Your task to perform on an android device: find which apps use the phone's location Image 0: 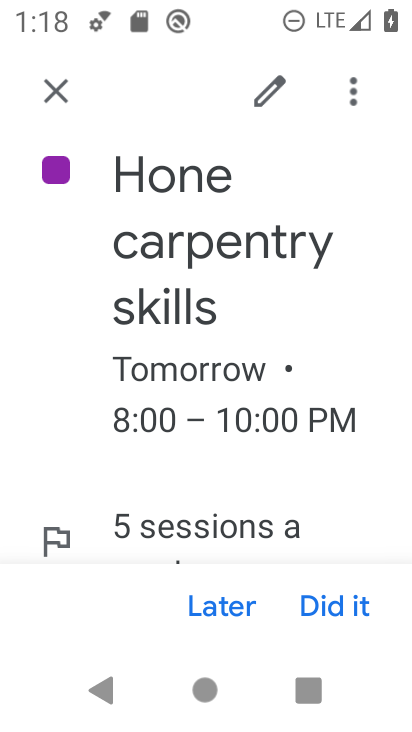
Step 0: press home button
Your task to perform on an android device: find which apps use the phone's location Image 1: 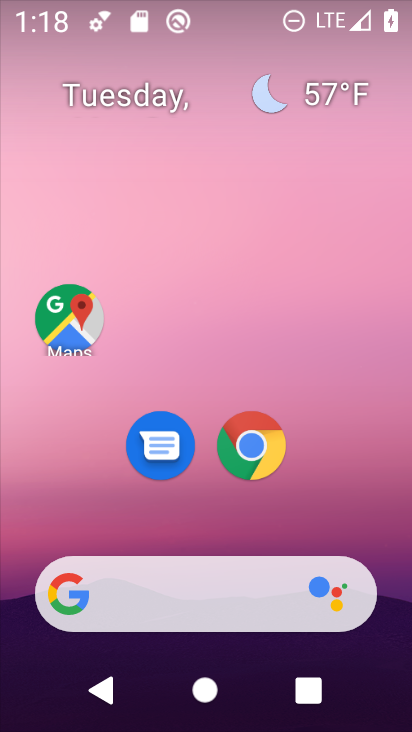
Step 1: drag from (393, 551) to (381, 166)
Your task to perform on an android device: find which apps use the phone's location Image 2: 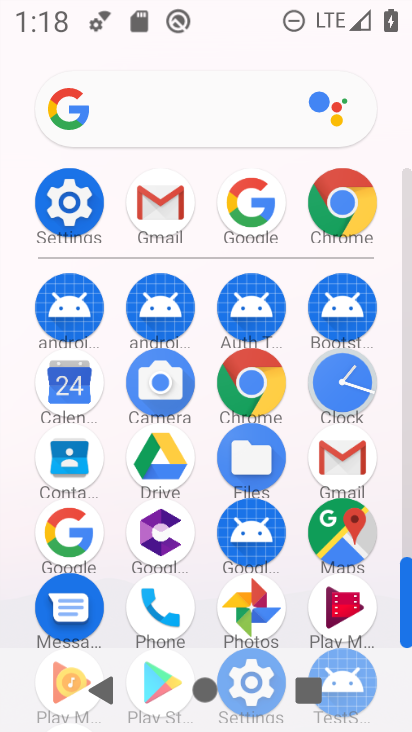
Step 2: drag from (377, 619) to (395, 378)
Your task to perform on an android device: find which apps use the phone's location Image 3: 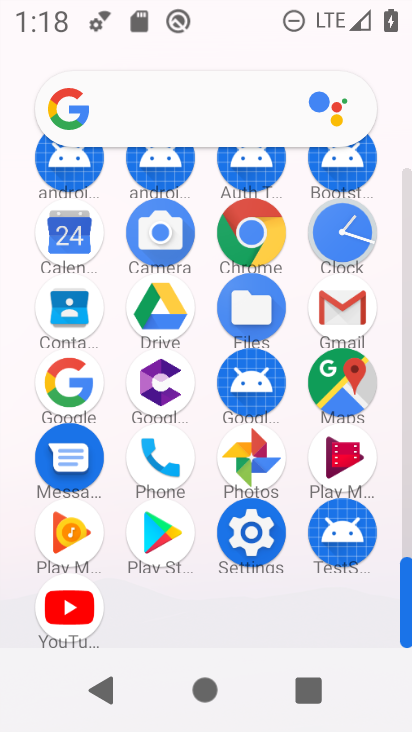
Step 3: click (248, 547)
Your task to perform on an android device: find which apps use the phone's location Image 4: 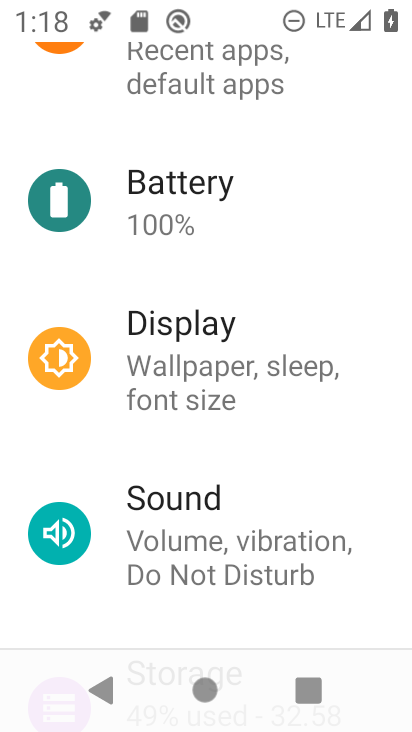
Step 4: drag from (361, 236) to (349, 476)
Your task to perform on an android device: find which apps use the phone's location Image 5: 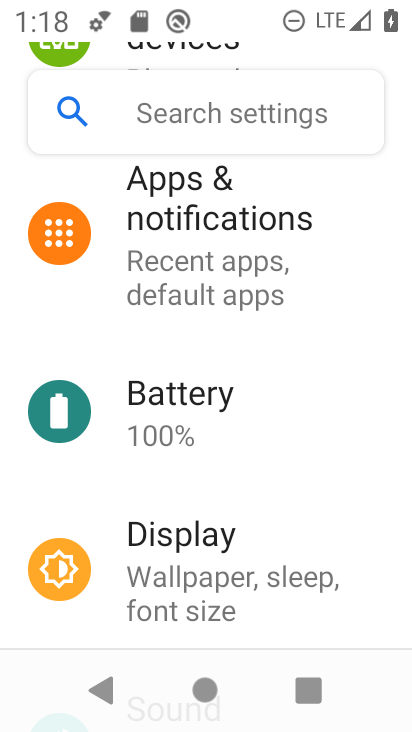
Step 5: drag from (358, 206) to (355, 378)
Your task to perform on an android device: find which apps use the phone's location Image 6: 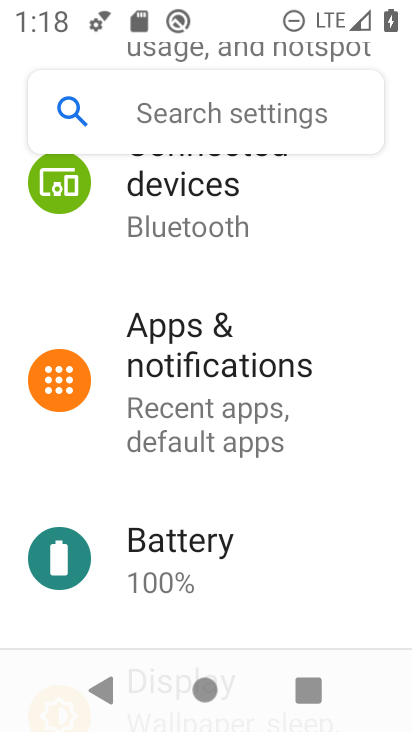
Step 6: drag from (363, 222) to (350, 394)
Your task to perform on an android device: find which apps use the phone's location Image 7: 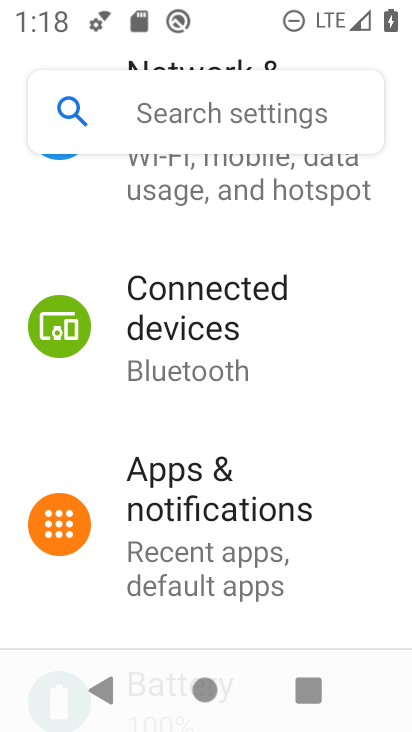
Step 7: drag from (365, 229) to (363, 412)
Your task to perform on an android device: find which apps use the phone's location Image 8: 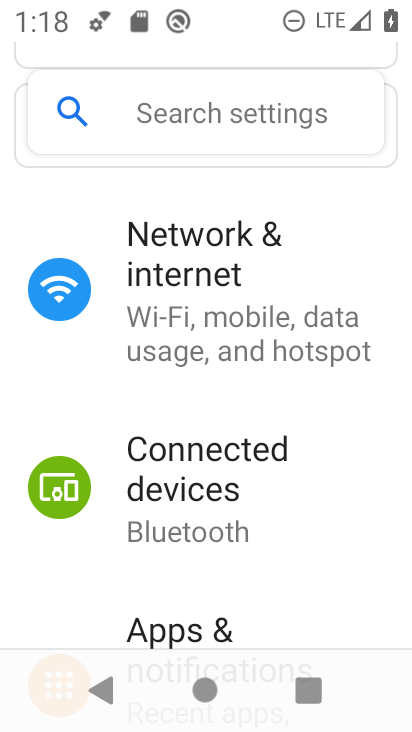
Step 8: drag from (359, 476) to (354, 358)
Your task to perform on an android device: find which apps use the phone's location Image 9: 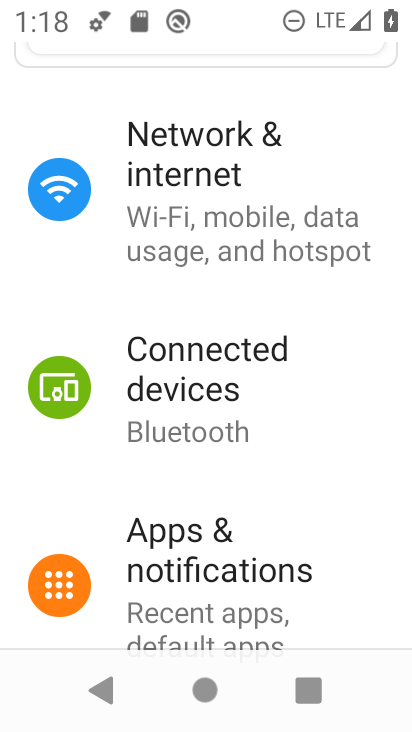
Step 9: drag from (349, 551) to (355, 440)
Your task to perform on an android device: find which apps use the phone's location Image 10: 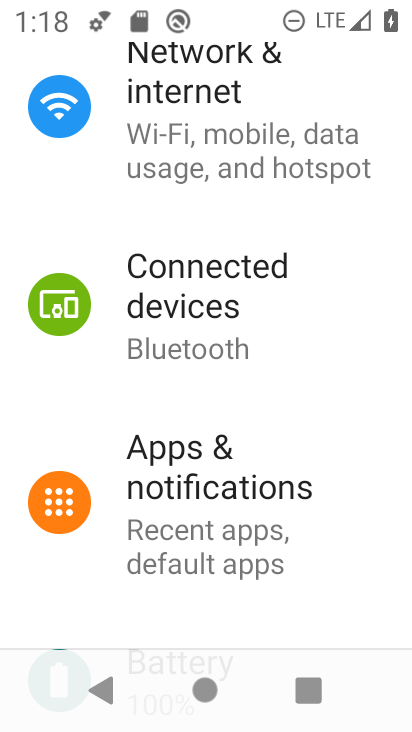
Step 10: drag from (350, 558) to (347, 412)
Your task to perform on an android device: find which apps use the phone's location Image 11: 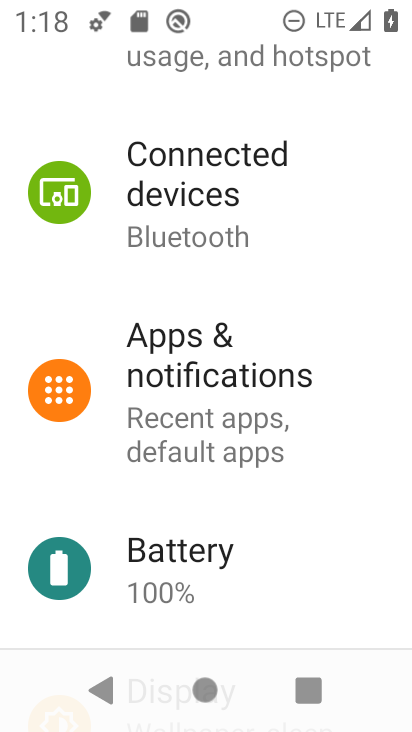
Step 11: drag from (350, 560) to (356, 422)
Your task to perform on an android device: find which apps use the phone's location Image 12: 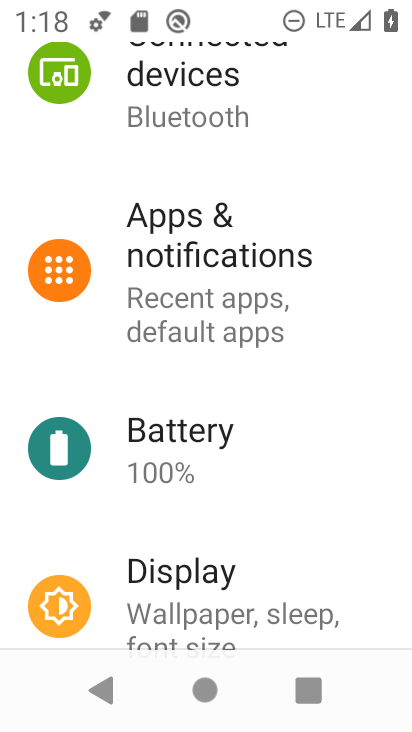
Step 12: drag from (350, 585) to (353, 436)
Your task to perform on an android device: find which apps use the phone's location Image 13: 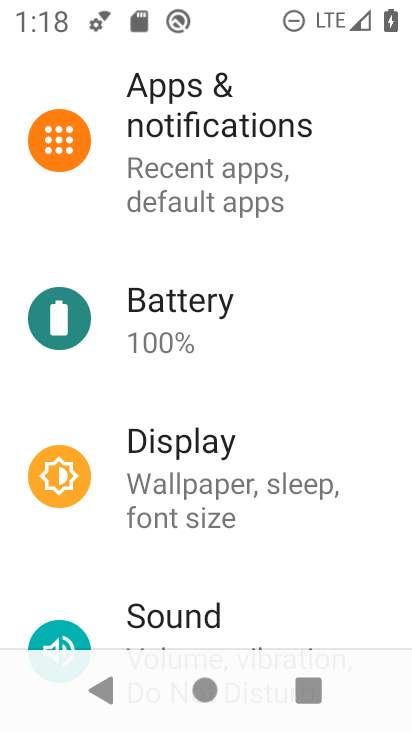
Step 13: drag from (376, 592) to (370, 450)
Your task to perform on an android device: find which apps use the phone's location Image 14: 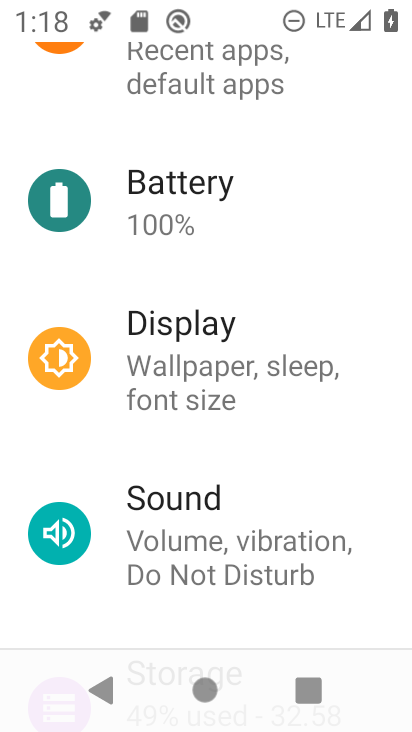
Step 14: drag from (365, 621) to (363, 497)
Your task to perform on an android device: find which apps use the phone's location Image 15: 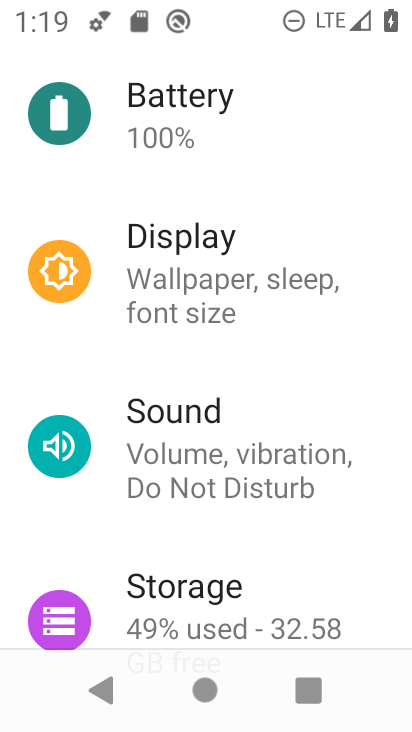
Step 15: drag from (360, 562) to (375, 443)
Your task to perform on an android device: find which apps use the phone's location Image 16: 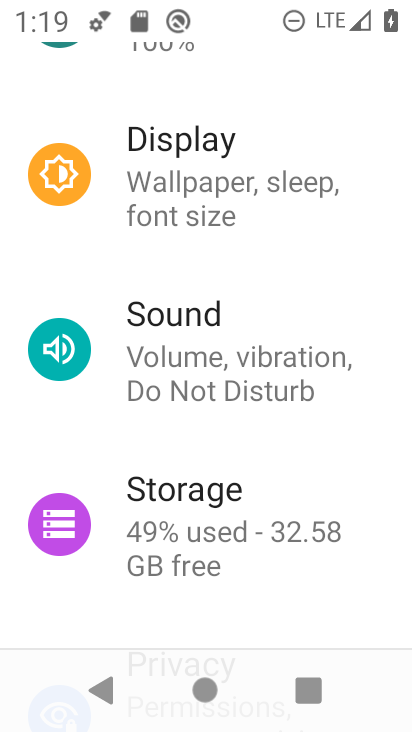
Step 16: drag from (353, 604) to (361, 485)
Your task to perform on an android device: find which apps use the phone's location Image 17: 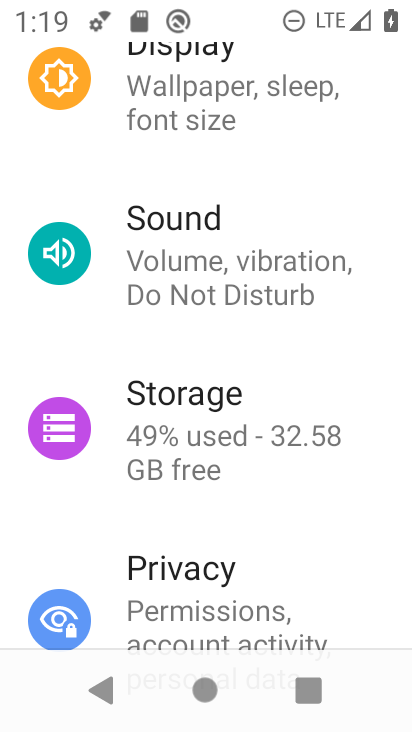
Step 17: drag from (356, 608) to (358, 502)
Your task to perform on an android device: find which apps use the phone's location Image 18: 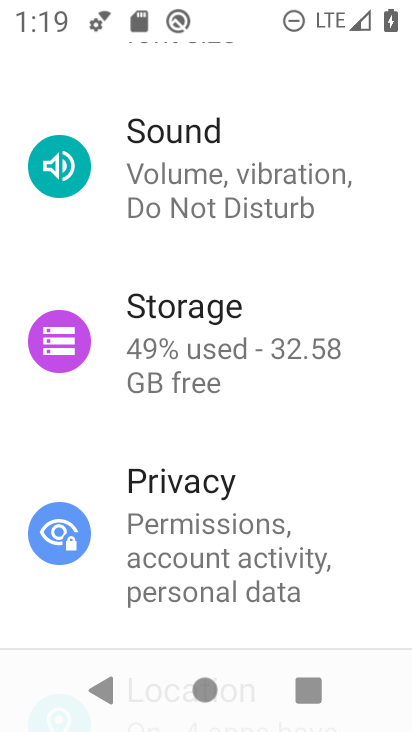
Step 18: drag from (351, 622) to (362, 455)
Your task to perform on an android device: find which apps use the phone's location Image 19: 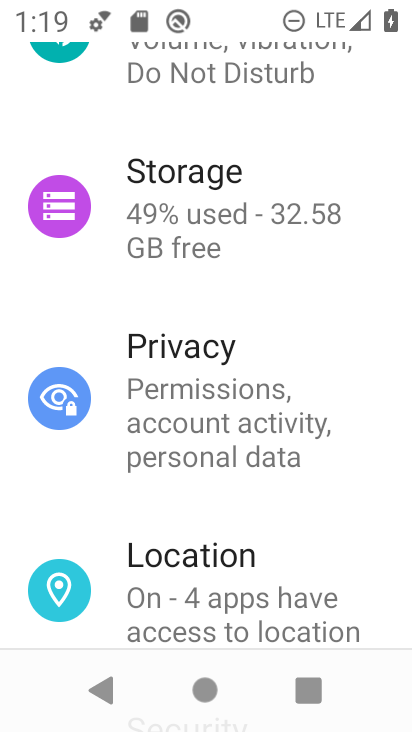
Step 19: click (270, 614)
Your task to perform on an android device: find which apps use the phone's location Image 20: 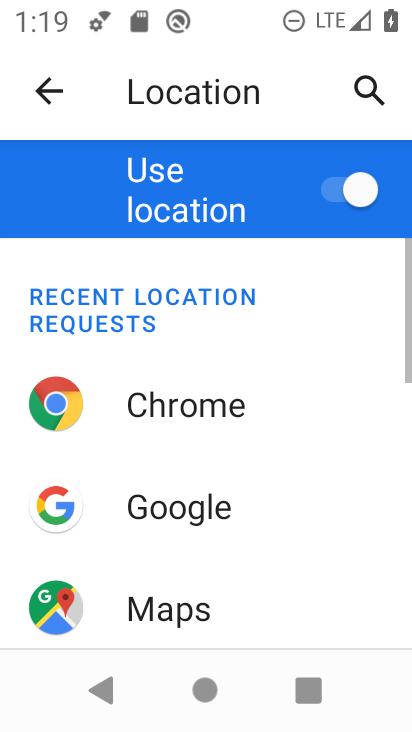
Step 20: drag from (306, 540) to (314, 369)
Your task to perform on an android device: find which apps use the phone's location Image 21: 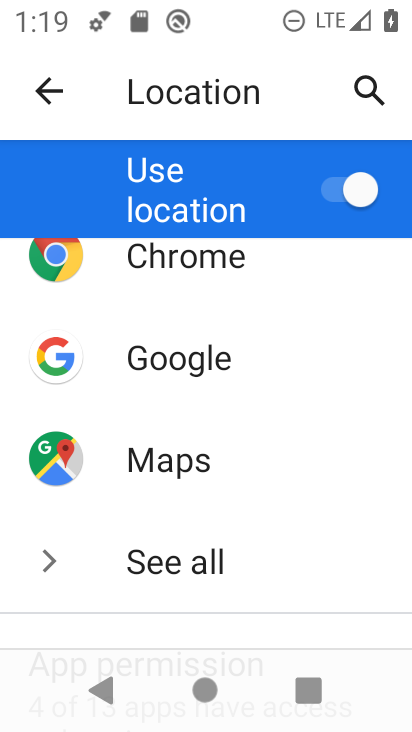
Step 21: drag from (312, 597) to (323, 426)
Your task to perform on an android device: find which apps use the phone's location Image 22: 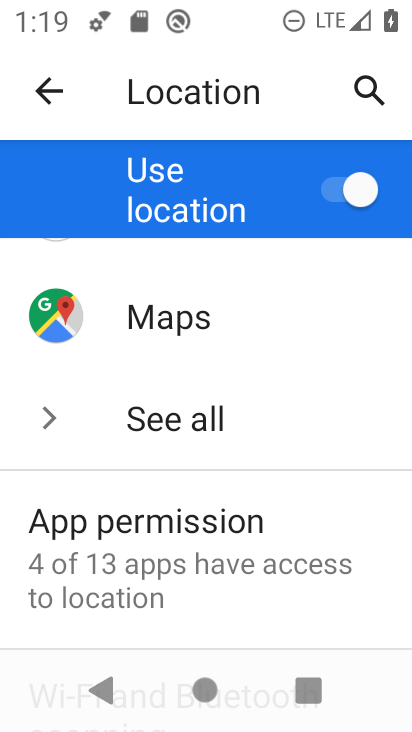
Step 22: drag from (323, 598) to (352, 357)
Your task to perform on an android device: find which apps use the phone's location Image 23: 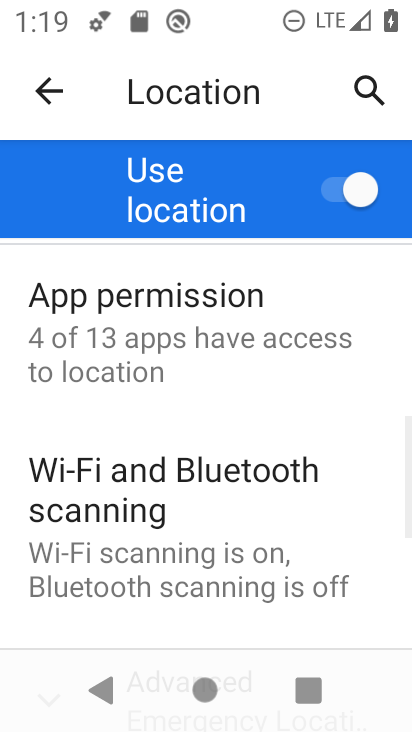
Step 23: click (350, 354)
Your task to perform on an android device: find which apps use the phone's location Image 24: 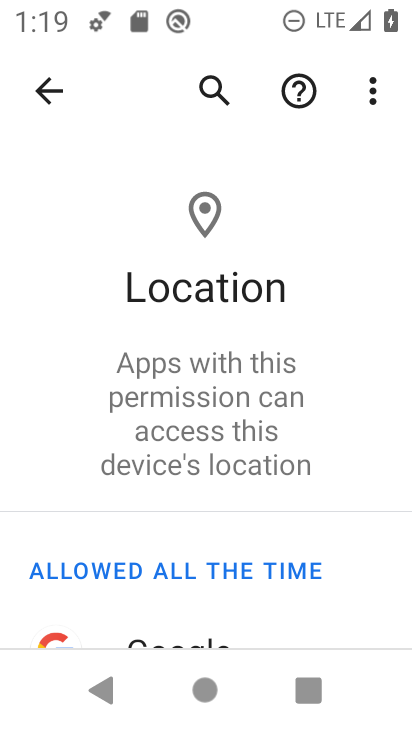
Step 24: drag from (325, 533) to (332, 390)
Your task to perform on an android device: find which apps use the phone's location Image 25: 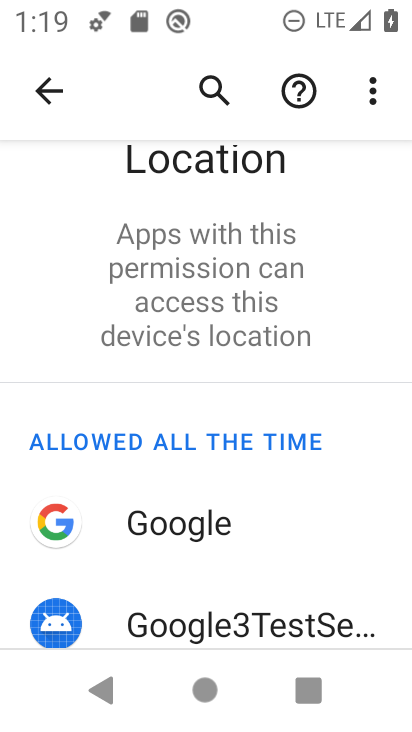
Step 25: drag from (340, 542) to (373, 400)
Your task to perform on an android device: find which apps use the phone's location Image 26: 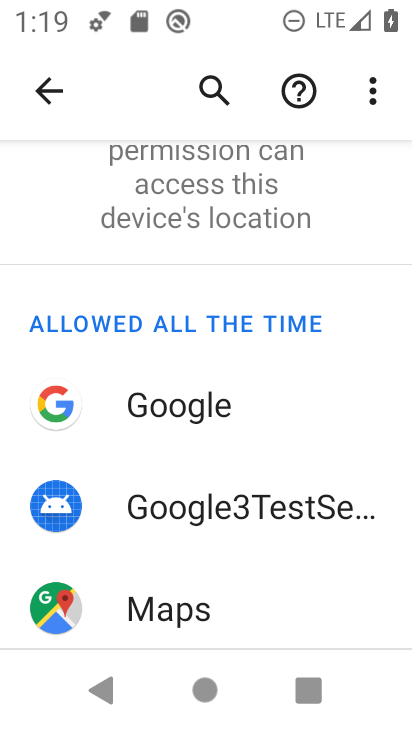
Step 26: drag from (355, 603) to (361, 432)
Your task to perform on an android device: find which apps use the phone's location Image 27: 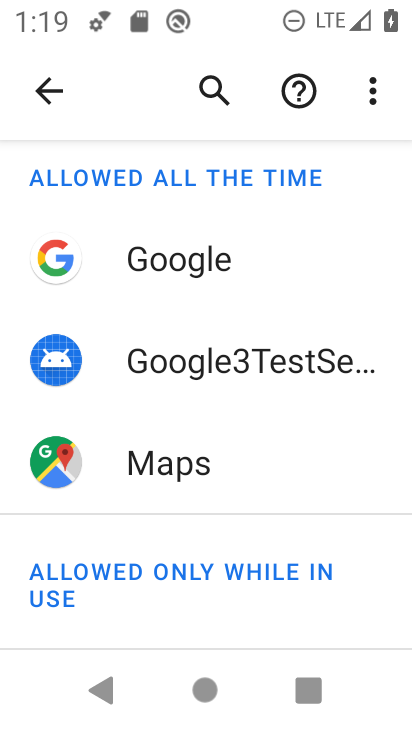
Step 27: drag from (367, 607) to (363, 422)
Your task to perform on an android device: find which apps use the phone's location Image 28: 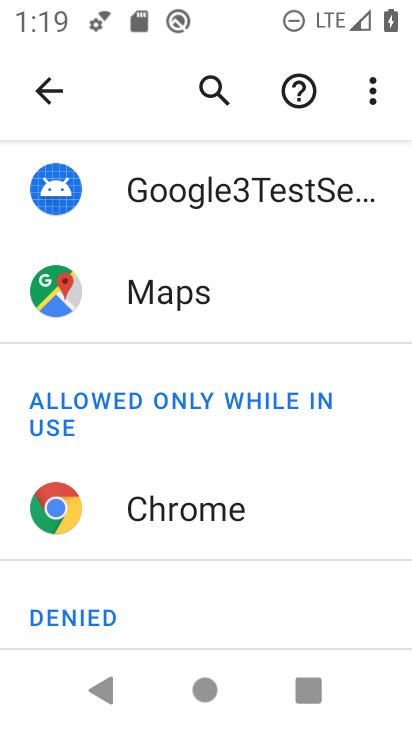
Step 28: drag from (343, 593) to (358, 367)
Your task to perform on an android device: find which apps use the phone's location Image 29: 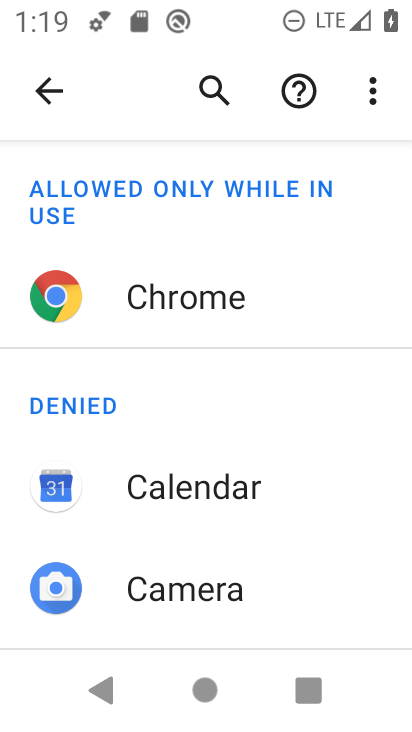
Step 29: drag from (325, 569) to (369, 387)
Your task to perform on an android device: find which apps use the phone's location Image 30: 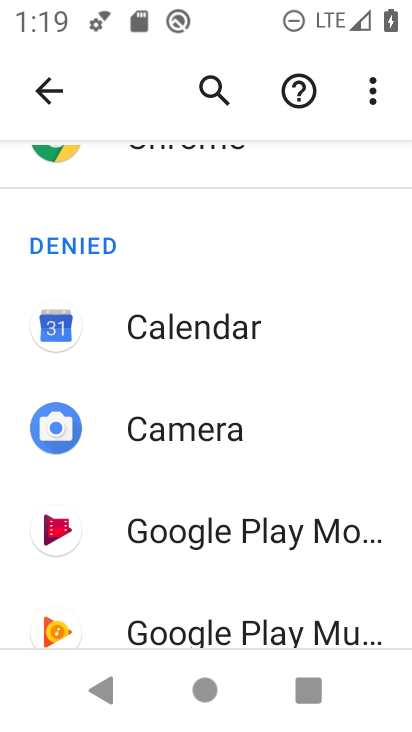
Step 30: drag from (344, 569) to (332, 433)
Your task to perform on an android device: find which apps use the phone's location Image 31: 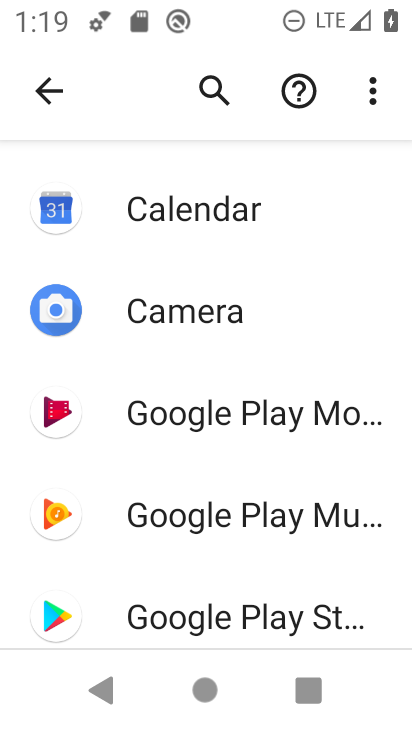
Step 31: drag from (324, 575) to (332, 392)
Your task to perform on an android device: find which apps use the phone's location Image 32: 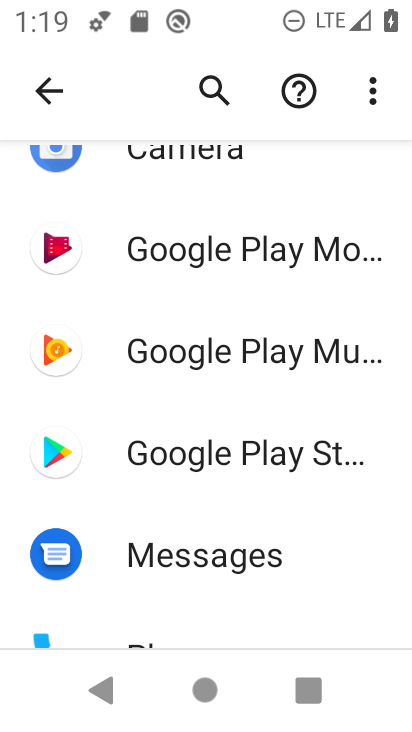
Step 32: drag from (353, 599) to (353, 435)
Your task to perform on an android device: find which apps use the phone's location Image 33: 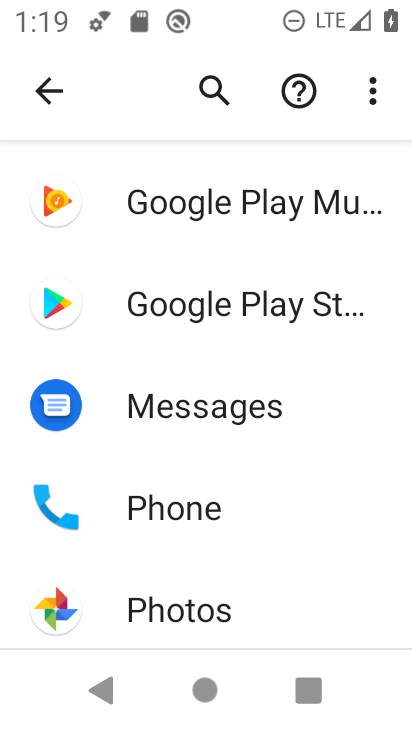
Step 33: click (255, 600)
Your task to perform on an android device: find which apps use the phone's location Image 34: 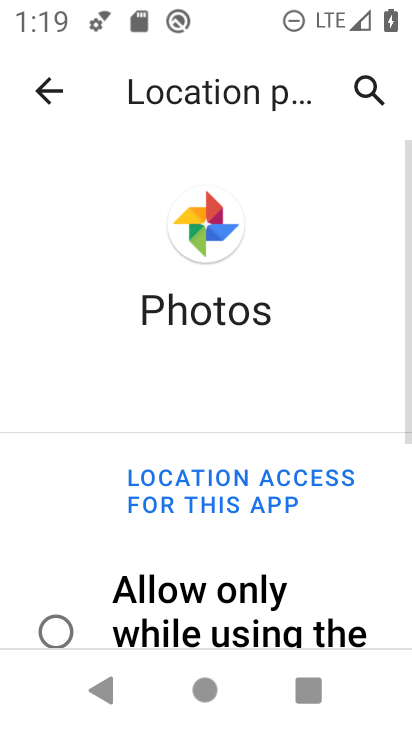
Step 34: click (255, 600)
Your task to perform on an android device: find which apps use the phone's location Image 35: 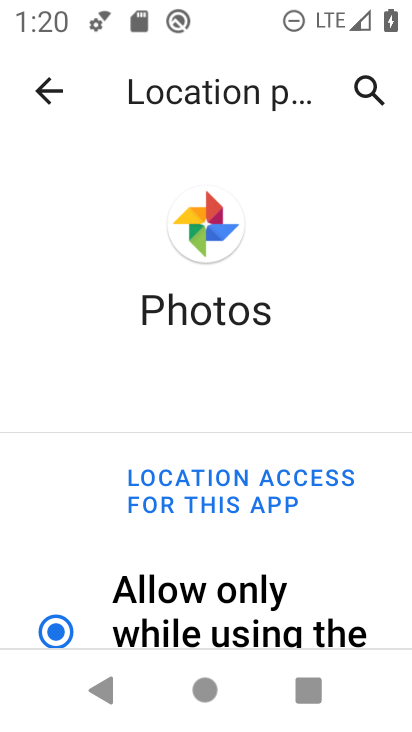
Step 35: task complete